Your task to perform on an android device: Open the calendar and show me this week's events? Image 0: 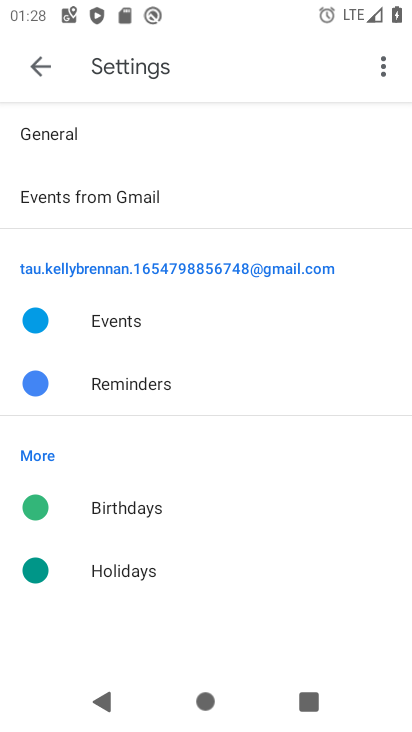
Step 0: press home button
Your task to perform on an android device: Open the calendar and show me this week's events? Image 1: 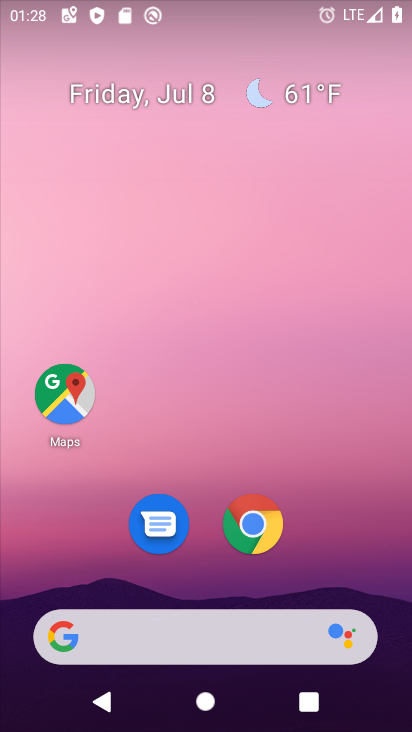
Step 1: drag from (326, 539) to (345, 57)
Your task to perform on an android device: Open the calendar and show me this week's events? Image 2: 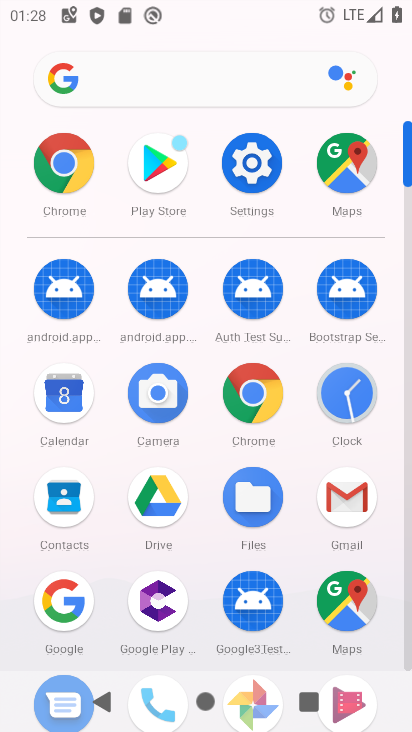
Step 2: click (63, 397)
Your task to perform on an android device: Open the calendar and show me this week's events? Image 3: 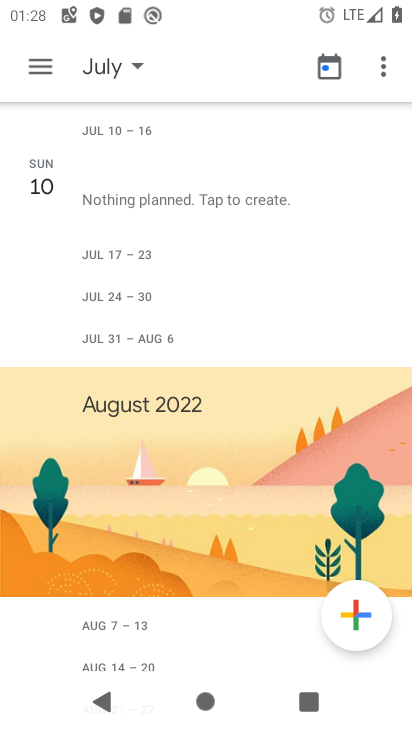
Step 3: drag from (234, 356) to (233, 528)
Your task to perform on an android device: Open the calendar and show me this week's events? Image 4: 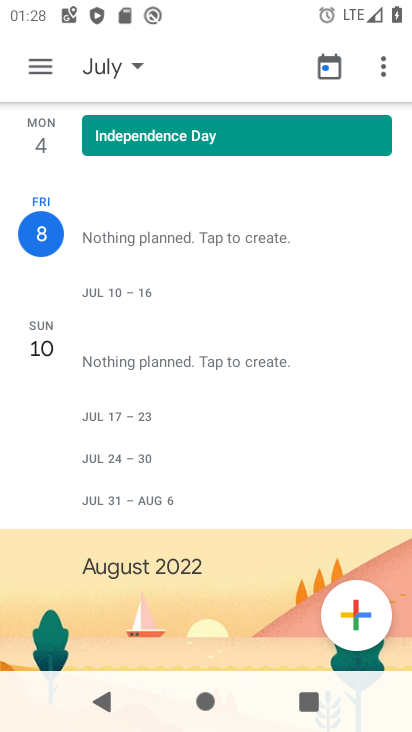
Step 4: click (43, 62)
Your task to perform on an android device: Open the calendar and show me this week's events? Image 5: 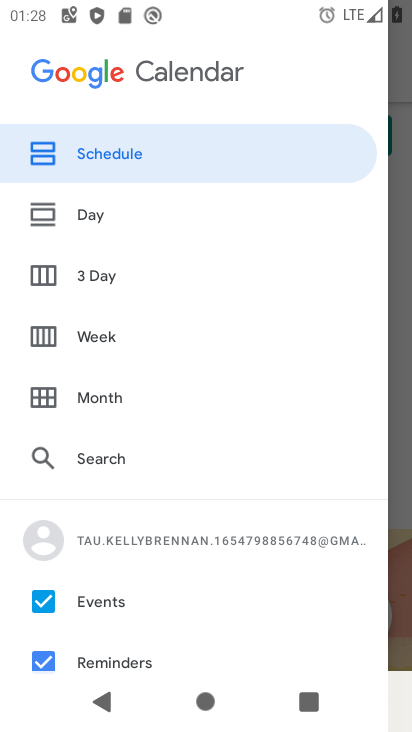
Step 5: click (36, 335)
Your task to perform on an android device: Open the calendar and show me this week's events? Image 6: 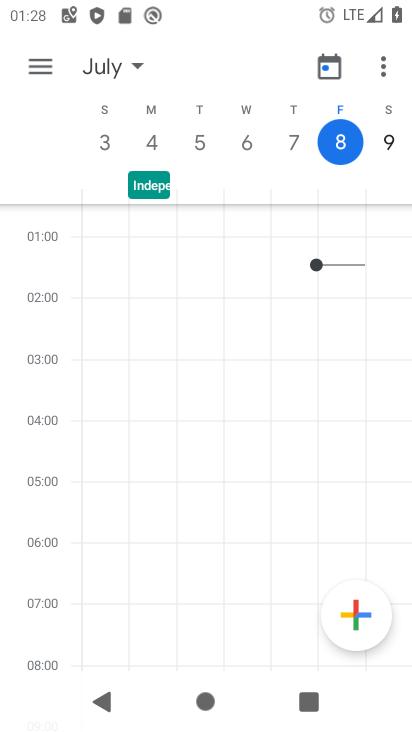
Step 6: task complete